Your task to perform on an android device: Open Yahoo.com Image 0: 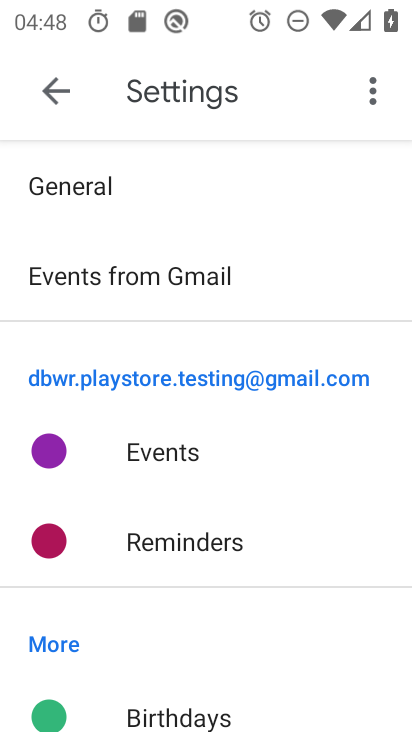
Step 0: press back button
Your task to perform on an android device: Open Yahoo.com Image 1: 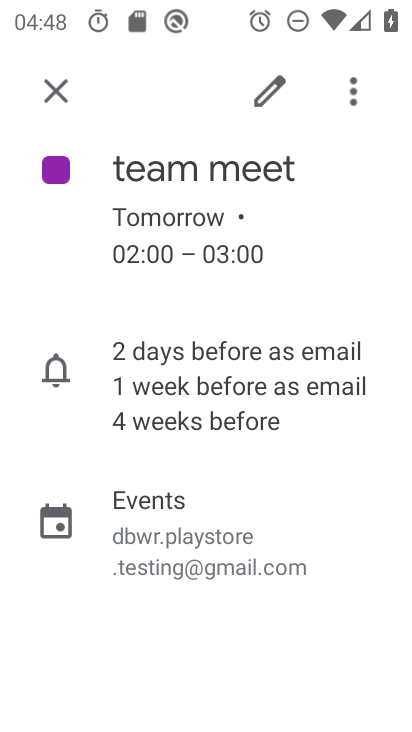
Step 1: press back button
Your task to perform on an android device: Open Yahoo.com Image 2: 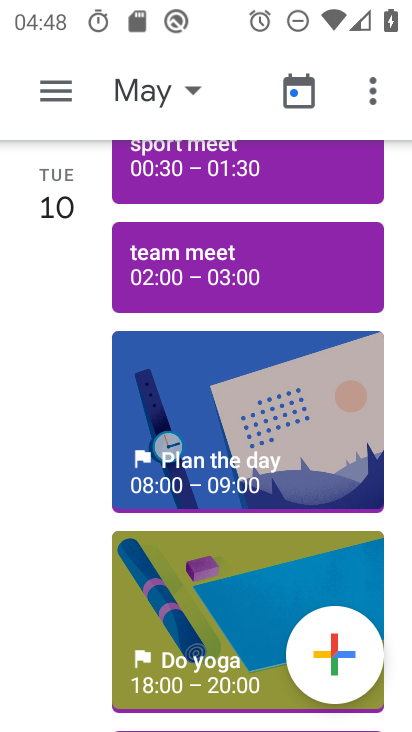
Step 2: press back button
Your task to perform on an android device: Open Yahoo.com Image 3: 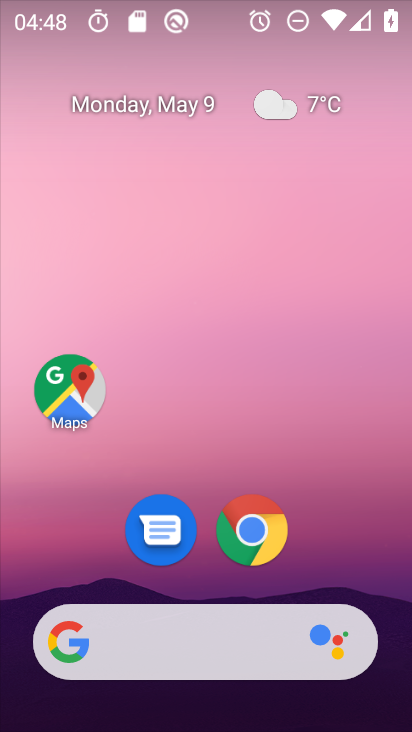
Step 3: click (264, 528)
Your task to perform on an android device: Open Yahoo.com Image 4: 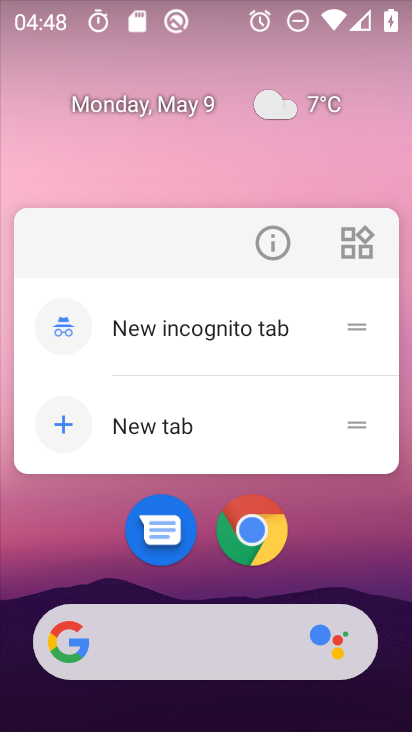
Step 4: click (264, 528)
Your task to perform on an android device: Open Yahoo.com Image 5: 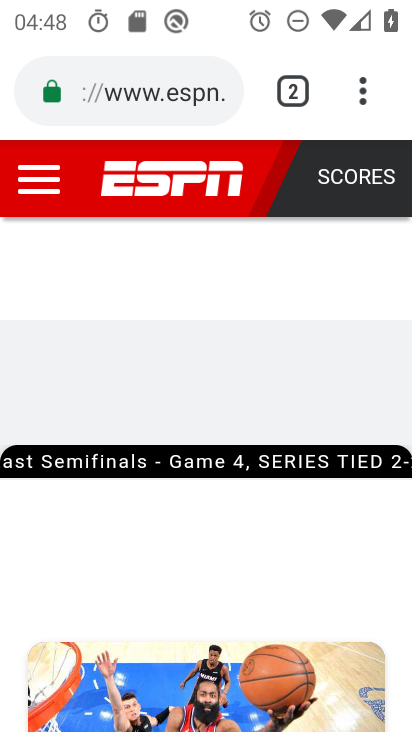
Step 5: click (299, 86)
Your task to perform on an android device: Open Yahoo.com Image 6: 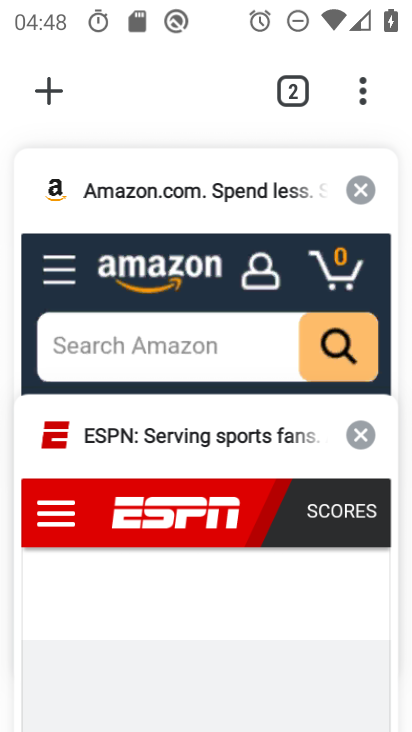
Step 6: click (52, 81)
Your task to perform on an android device: Open Yahoo.com Image 7: 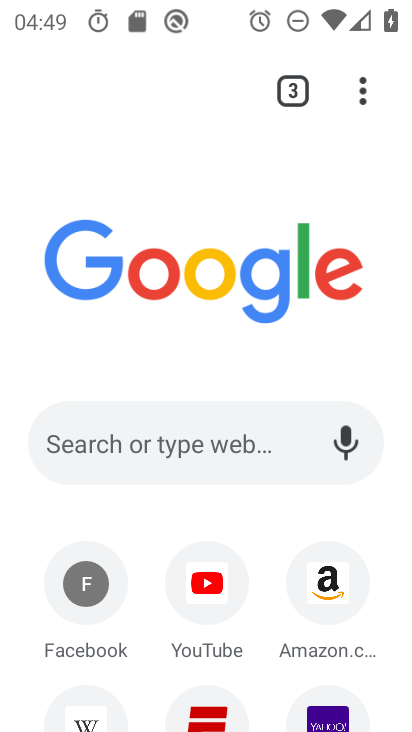
Step 7: click (336, 713)
Your task to perform on an android device: Open Yahoo.com Image 8: 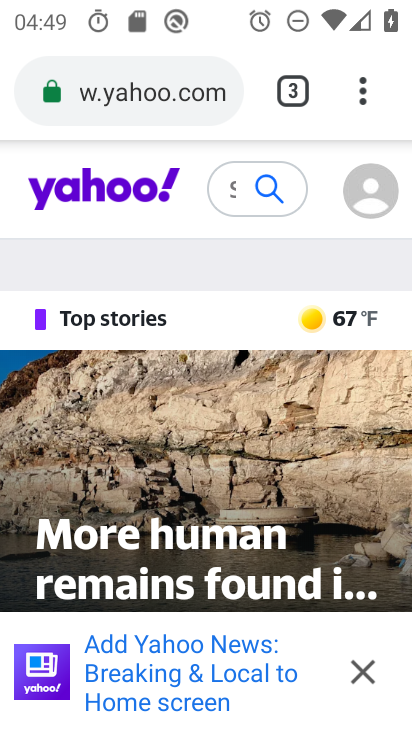
Step 8: task complete